Your task to perform on an android device: Go to Google maps Image 0: 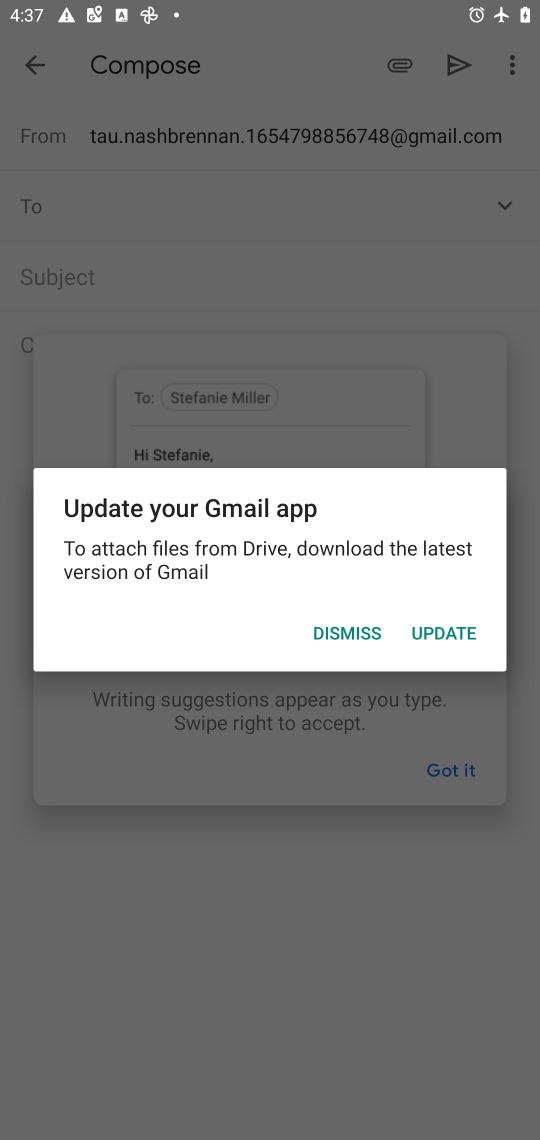
Step 0: press home button
Your task to perform on an android device: Go to Google maps Image 1: 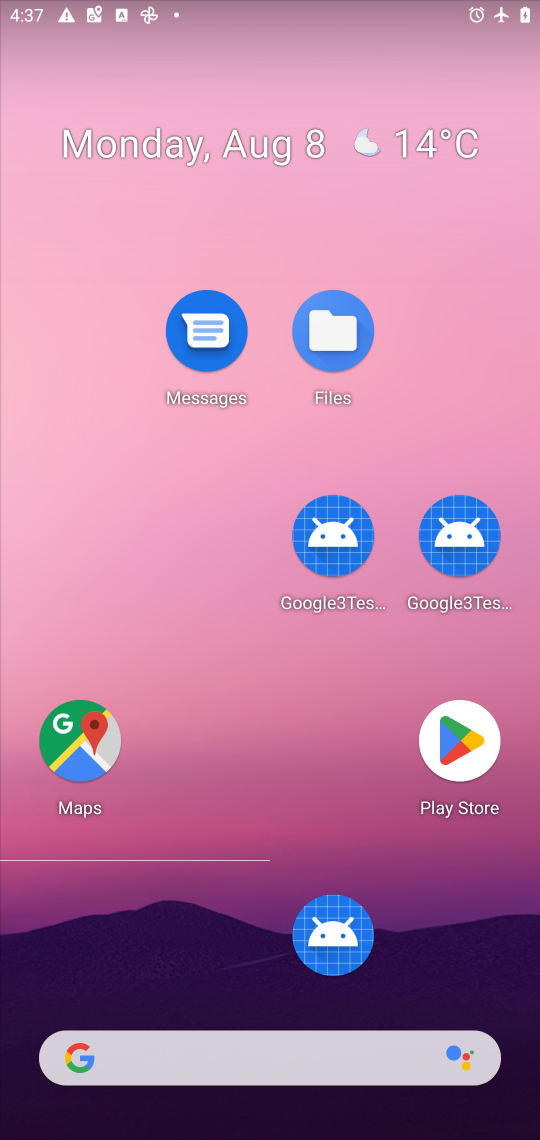
Step 1: drag from (332, 1042) to (379, 4)
Your task to perform on an android device: Go to Google maps Image 2: 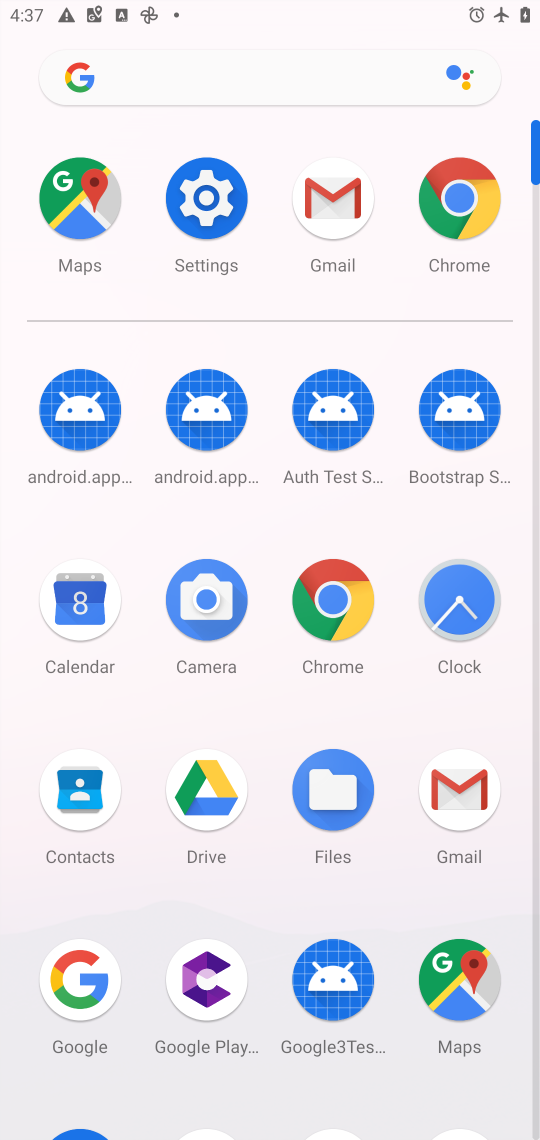
Step 2: click (451, 986)
Your task to perform on an android device: Go to Google maps Image 3: 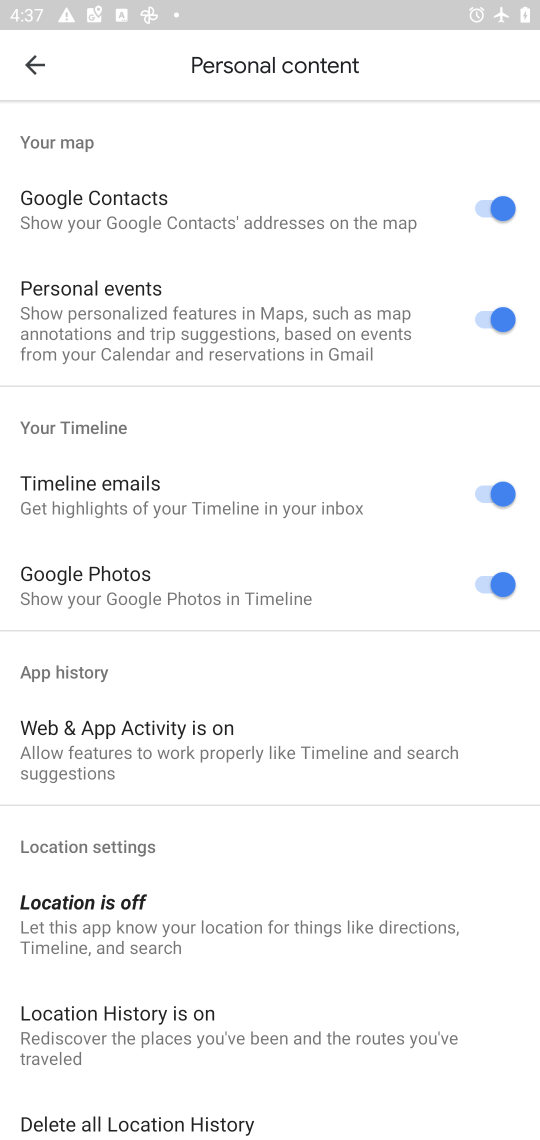
Step 3: task complete